Your task to perform on an android device: Show me the alarms in the clock app Image 0: 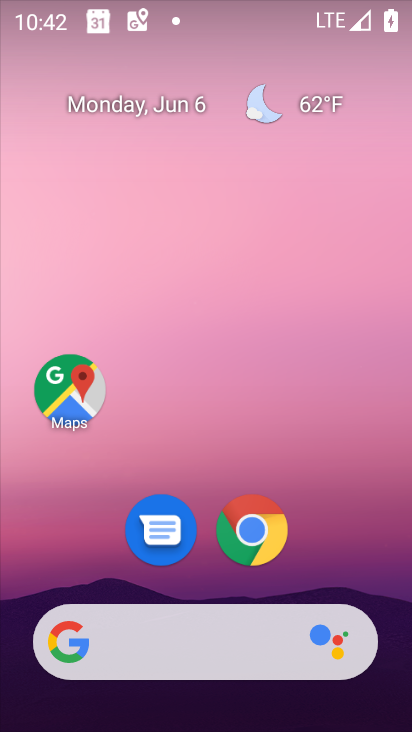
Step 0: drag from (317, 564) to (318, 116)
Your task to perform on an android device: Show me the alarms in the clock app Image 1: 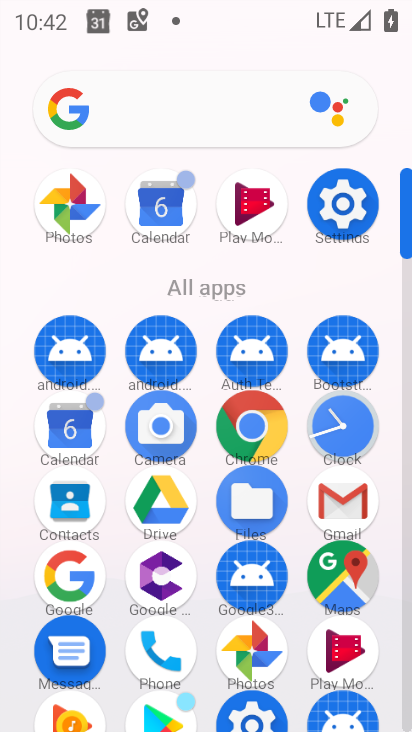
Step 1: click (343, 427)
Your task to perform on an android device: Show me the alarms in the clock app Image 2: 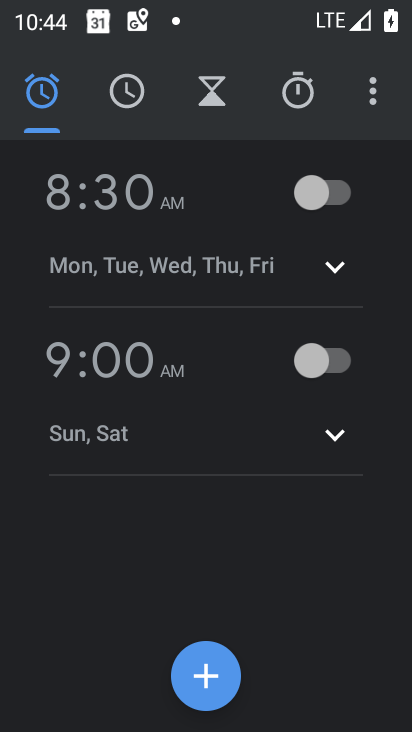
Step 2: task complete